Your task to perform on an android device: check battery use Image 0: 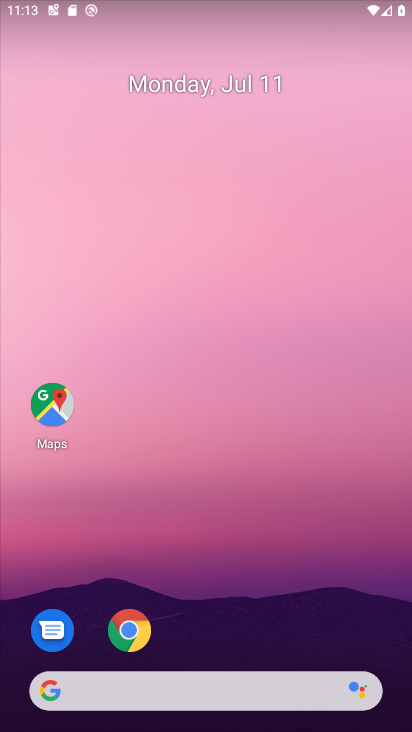
Step 0: drag from (194, 514) to (316, 8)
Your task to perform on an android device: check battery use Image 1: 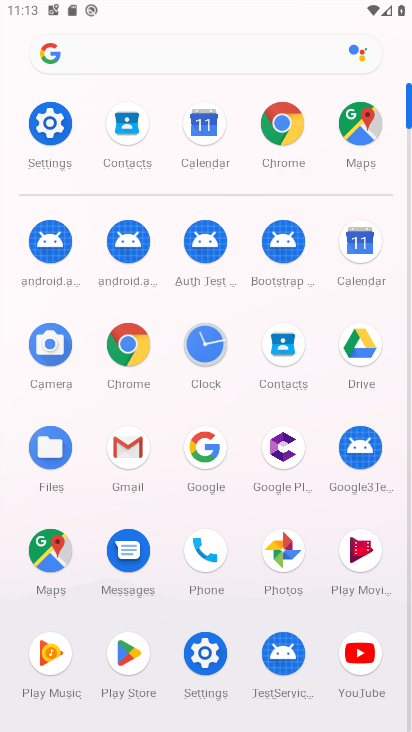
Step 1: click (208, 661)
Your task to perform on an android device: check battery use Image 2: 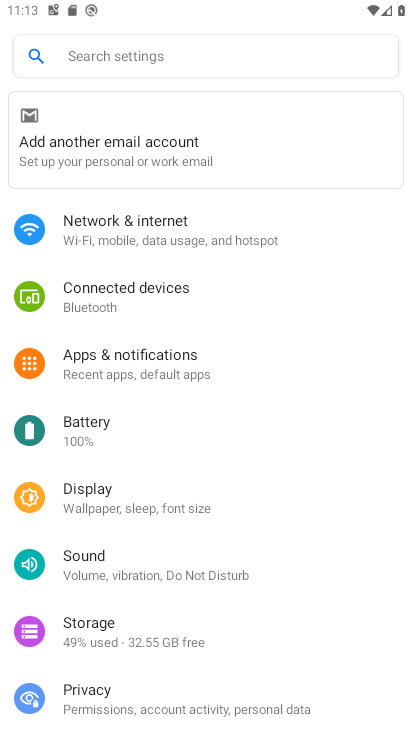
Step 2: click (87, 440)
Your task to perform on an android device: check battery use Image 3: 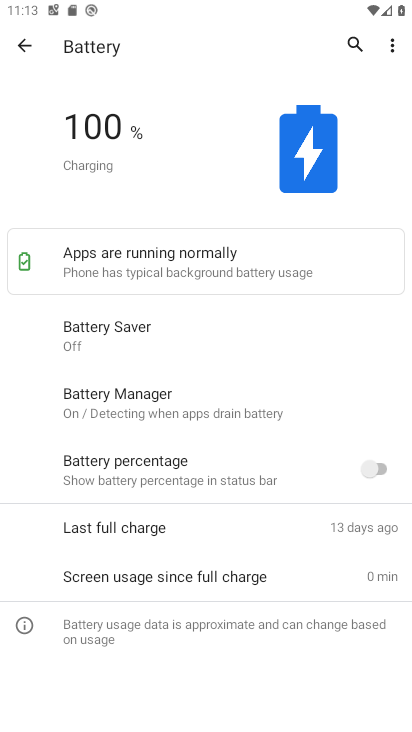
Step 3: task complete